Your task to perform on an android device: add a contact in the contacts app Image 0: 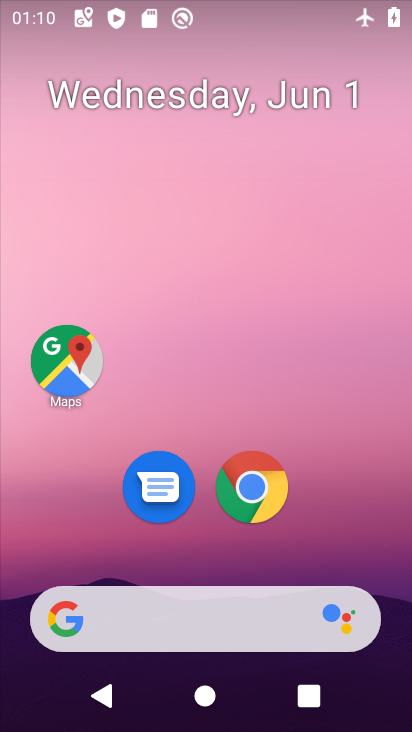
Step 0: drag from (351, 557) to (309, 217)
Your task to perform on an android device: add a contact in the contacts app Image 1: 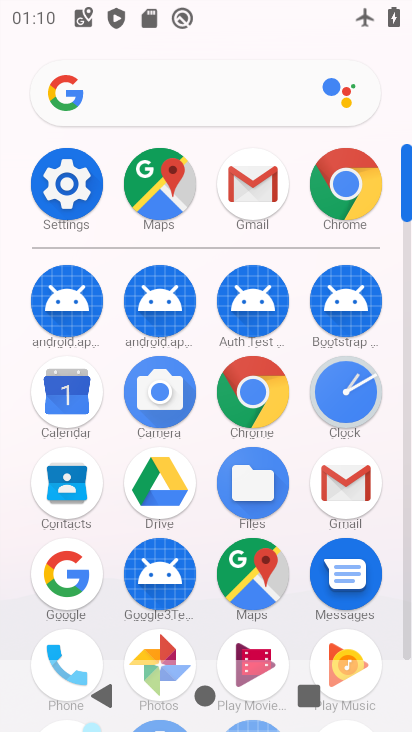
Step 1: click (58, 643)
Your task to perform on an android device: add a contact in the contacts app Image 2: 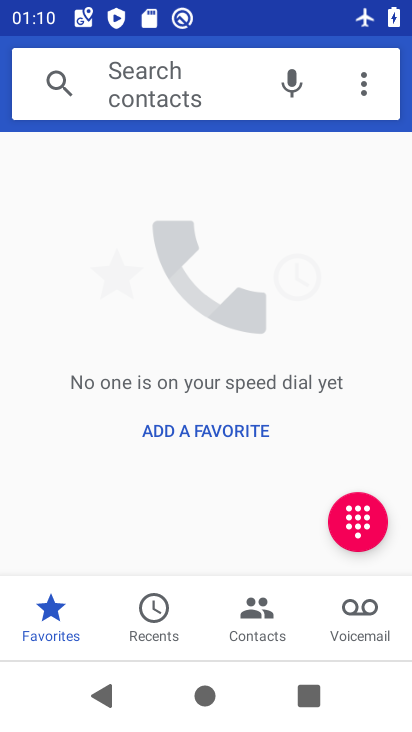
Step 2: click (184, 428)
Your task to perform on an android device: add a contact in the contacts app Image 3: 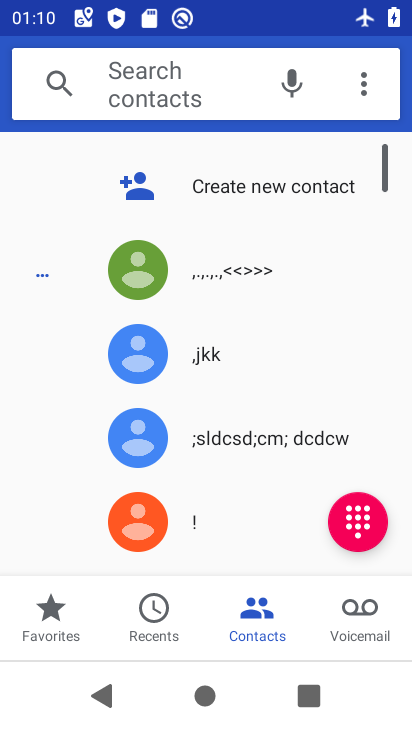
Step 3: click (254, 169)
Your task to perform on an android device: add a contact in the contacts app Image 4: 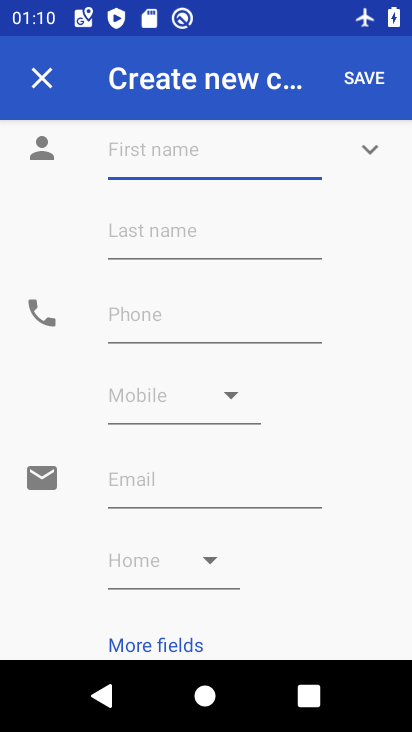
Step 4: type "dsdsdsdsds"
Your task to perform on an android device: add a contact in the contacts app Image 5: 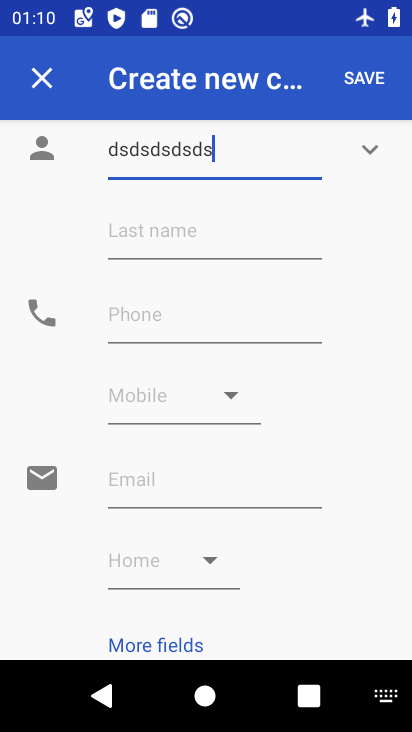
Step 5: click (198, 316)
Your task to perform on an android device: add a contact in the contacts app Image 6: 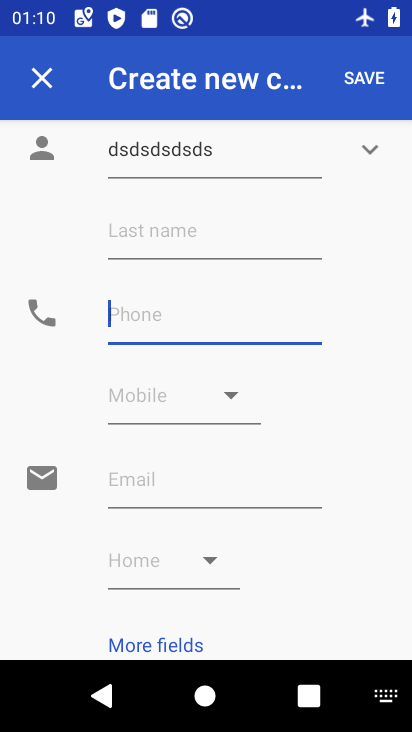
Step 6: type "1234567890"
Your task to perform on an android device: add a contact in the contacts app Image 7: 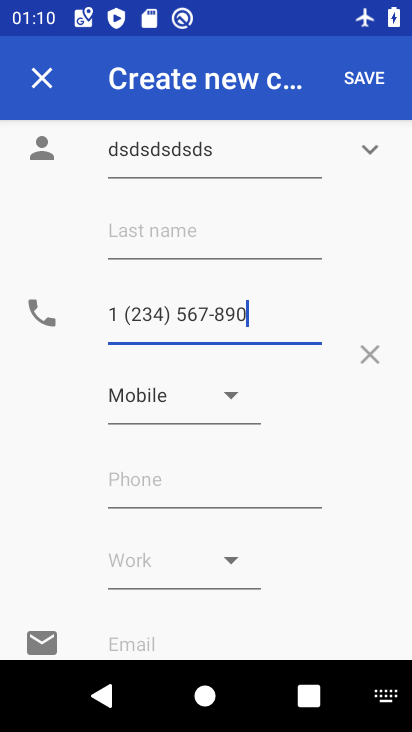
Step 7: click (364, 75)
Your task to perform on an android device: add a contact in the contacts app Image 8: 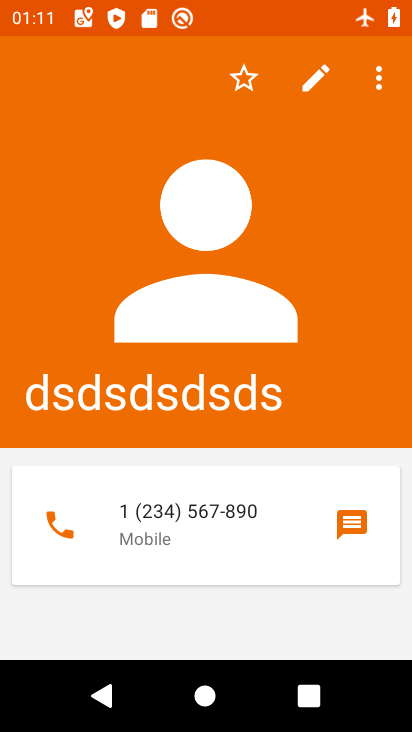
Step 8: task complete